Your task to perform on an android device: Go to sound settings Image 0: 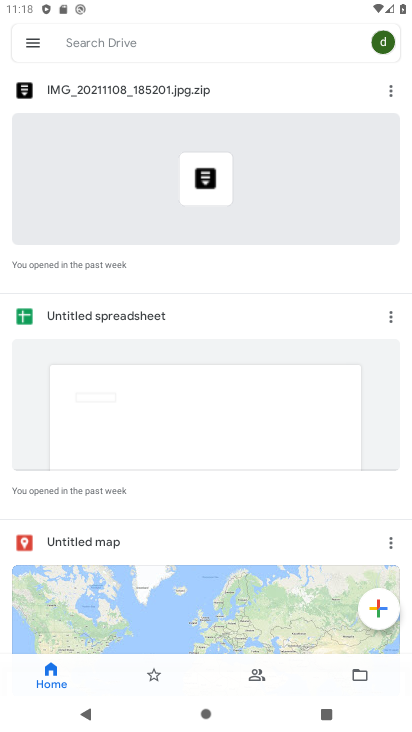
Step 0: press home button
Your task to perform on an android device: Go to sound settings Image 1: 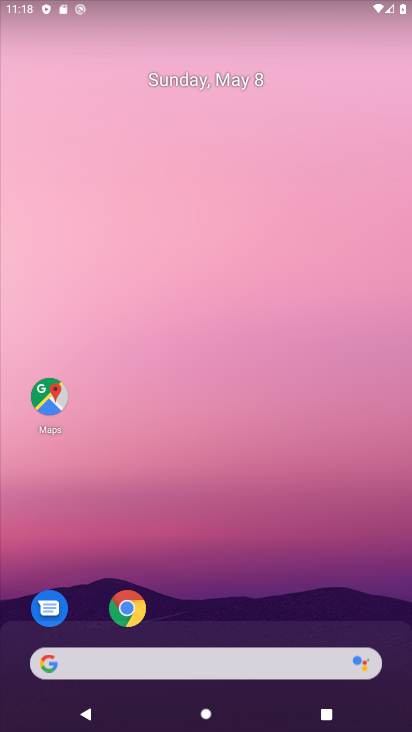
Step 1: drag from (243, 652) to (393, 104)
Your task to perform on an android device: Go to sound settings Image 2: 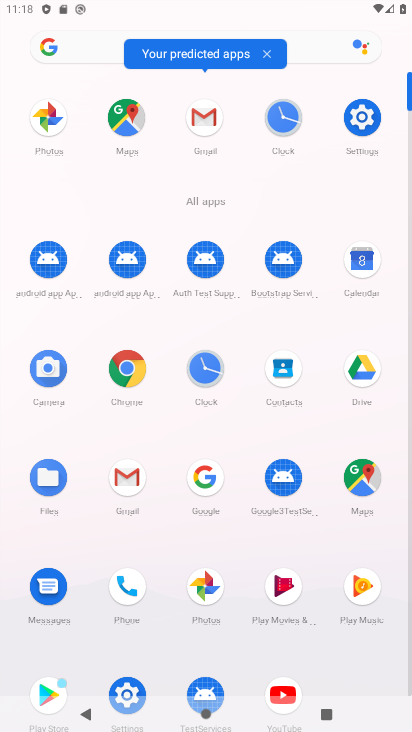
Step 2: click (123, 690)
Your task to perform on an android device: Go to sound settings Image 3: 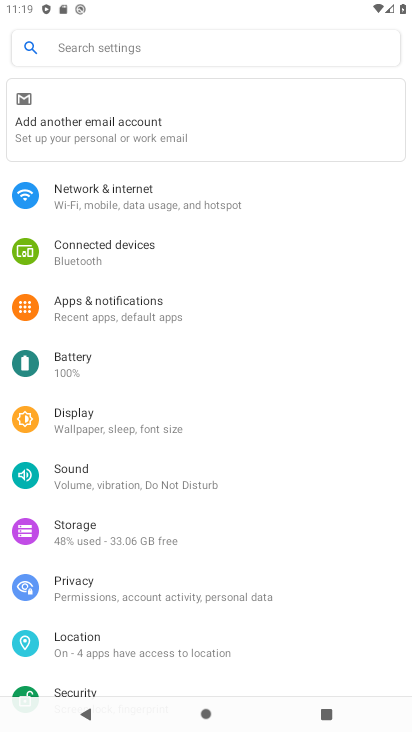
Step 3: click (116, 470)
Your task to perform on an android device: Go to sound settings Image 4: 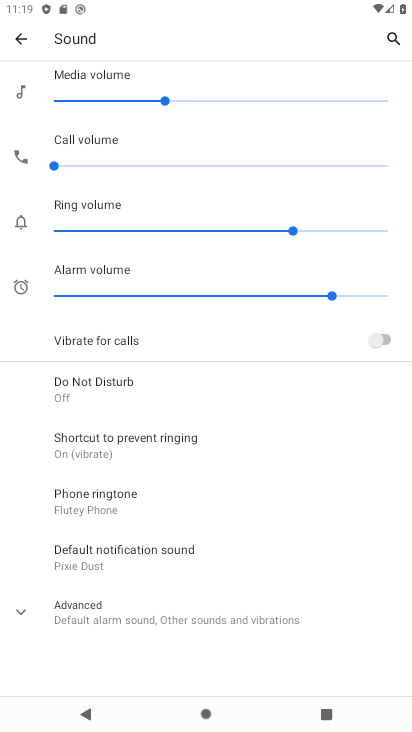
Step 4: task complete